Your task to perform on an android device: turn off translation in the chrome app Image 0: 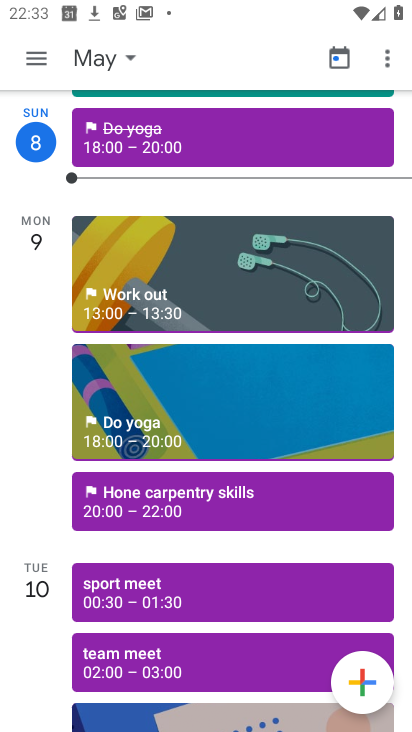
Step 0: press home button
Your task to perform on an android device: turn off translation in the chrome app Image 1: 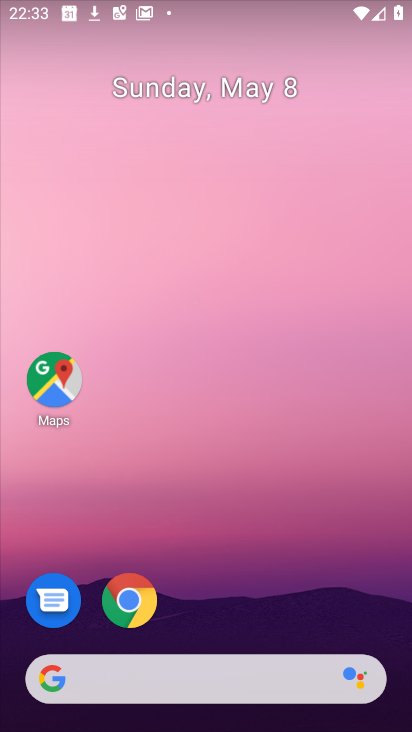
Step 1: drag from (272, 717) to (247, 274)
Your task to perform on an android device: turn off translation in the chrome app Image 2: 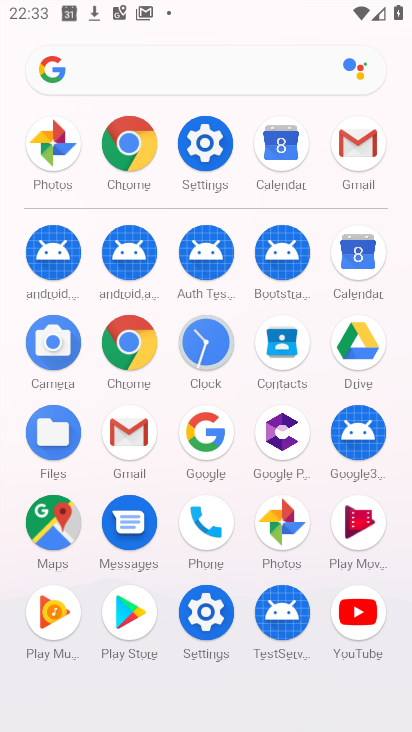
Step 2: click (145, 138)
Your task to perform on an android device: turn off translation in the chrome app Image 3: 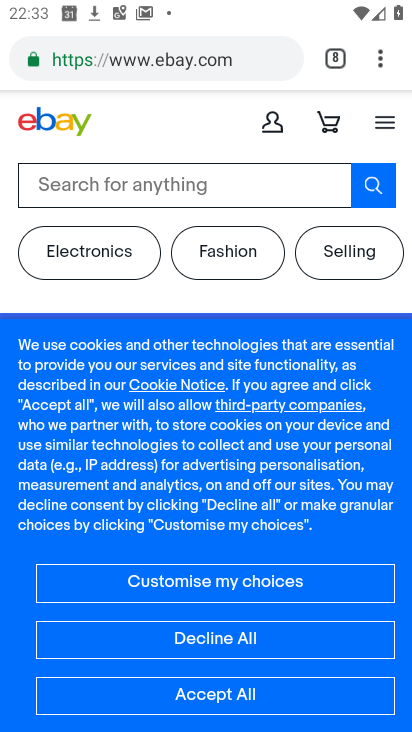
Step 3: click (371, 72)
Your task to perform on an android device: turn off translation in the chrome app Image 4: 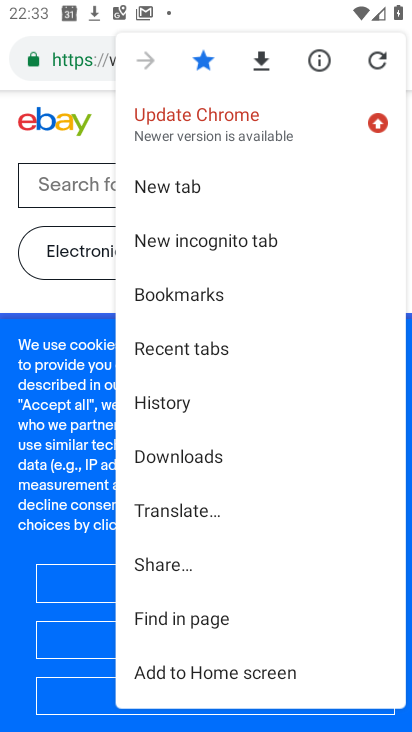
Step 4: drag from (208, 591) to (285, 434)
Your task to perform on an android device: turn off translation in the chrome app Image 5: 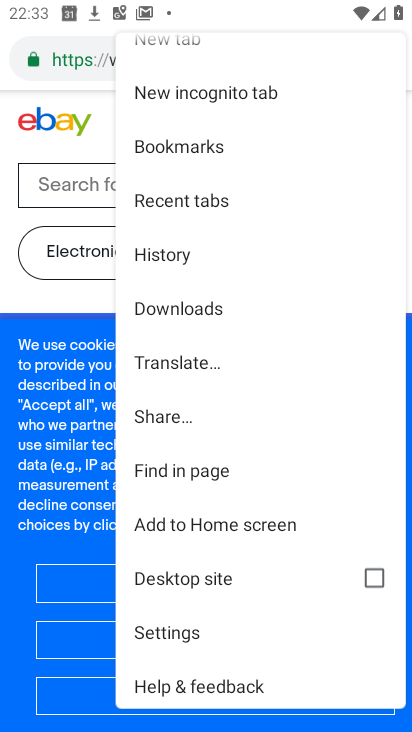
Step 5: click (198, 627)
Your task to perform on an android device: turn off translation in the chrome app Image 6: 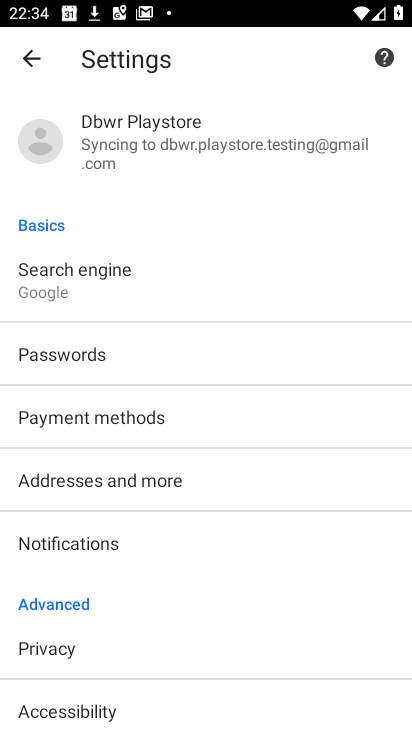
Step 6: drag from (198, 627) to (226, 406)
Your task to perform on an android device: turn off translation in the chrome app Image 7: 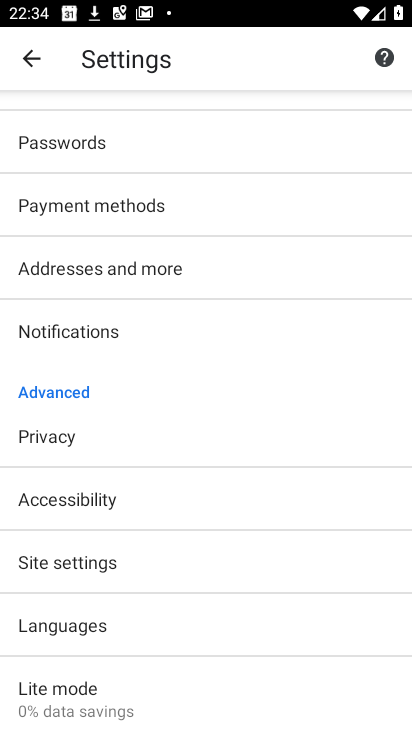
Step 7: click (82, 618)
Your task to perform on an android device: turn off translation in the chrome app Image 8: 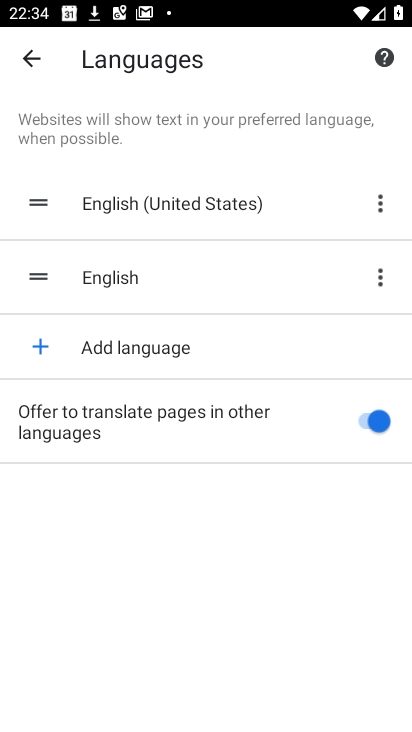
Step 8: click (255, 409)
Your task to perform on an android device: turn off translation in the chrome app Image 9: 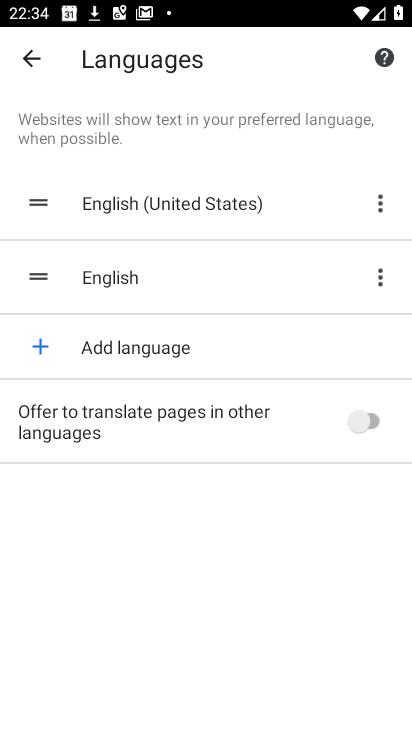
Step 9: task complete